Your task to perform on an android device: Add "razer blackwidow" to the cart on target.com Image 0: 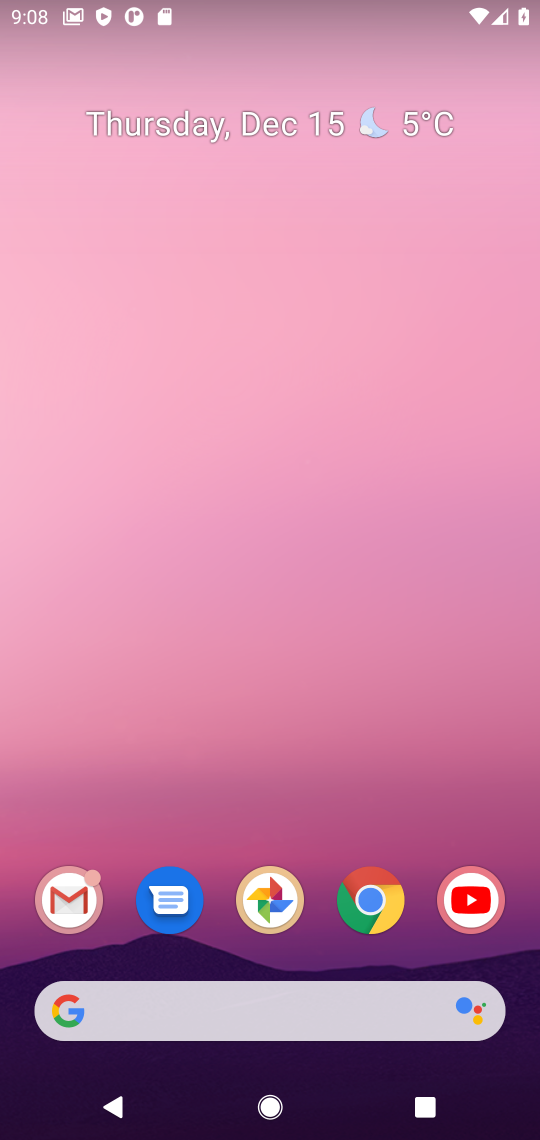
Step 0: click (386, 908)
Your task to perform on an android device: Add "razer blackwidow" to the cart on target.com Image 1: 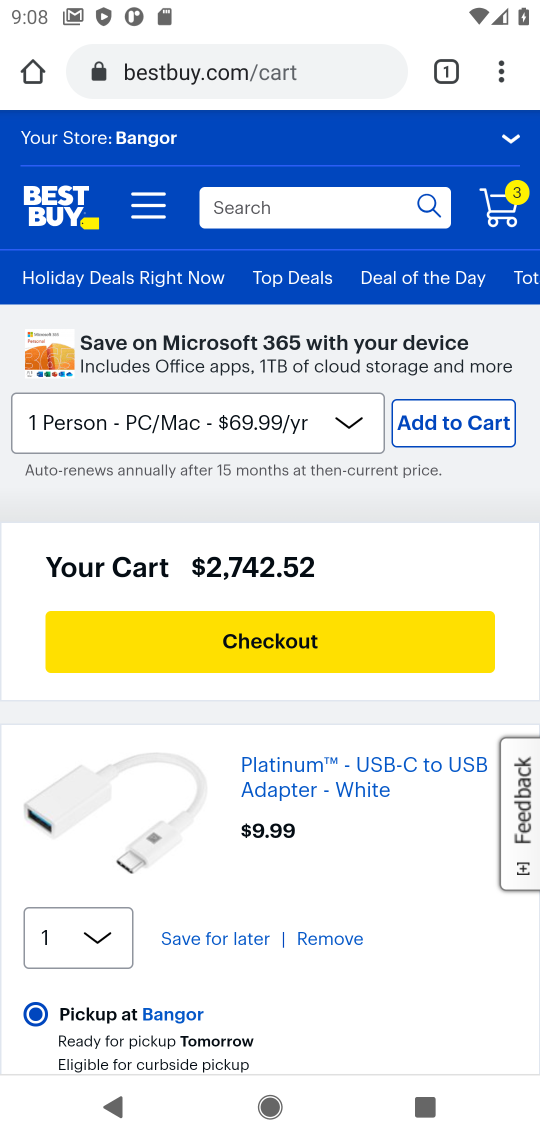
Step 1: click (230, 76)
Your task to perform on an android device: Add "razer blackwidow" to the cart on target.com Image 2: 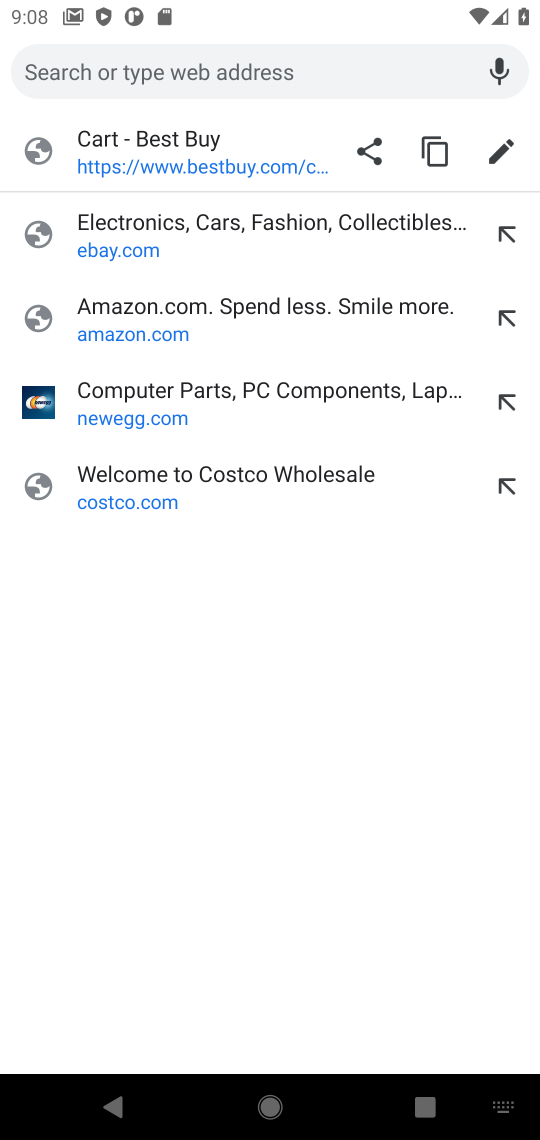
Step 2: type "target.com"
Your task to perform on an android device: Add "razer blackwidow" to the cart on target.com Image 3: 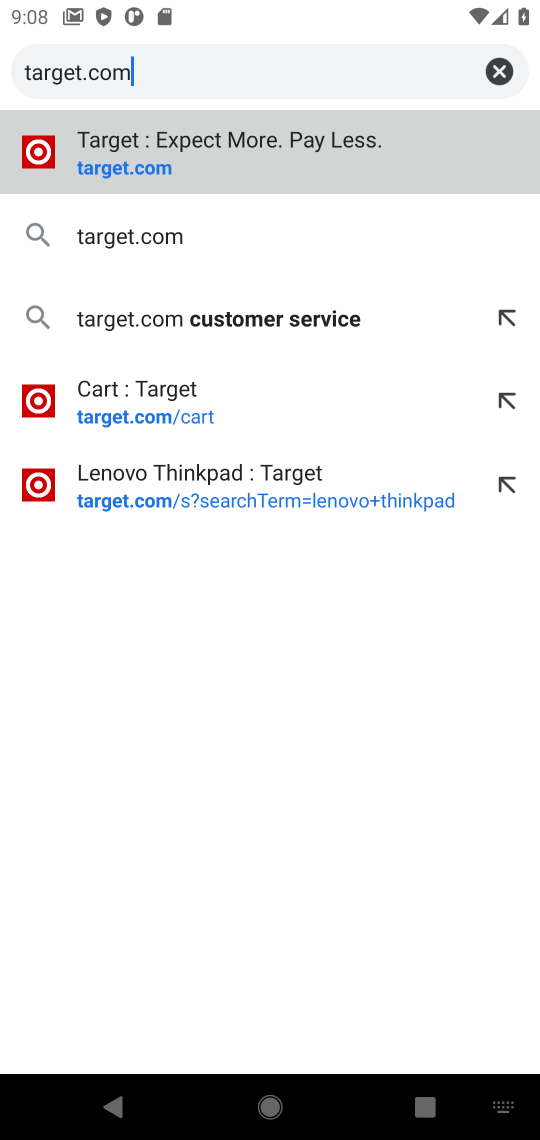
Step 3: click (277, 183)
Your task to perform on an android device: Add "razer blackwidow" to the cart on target.com Image 4: 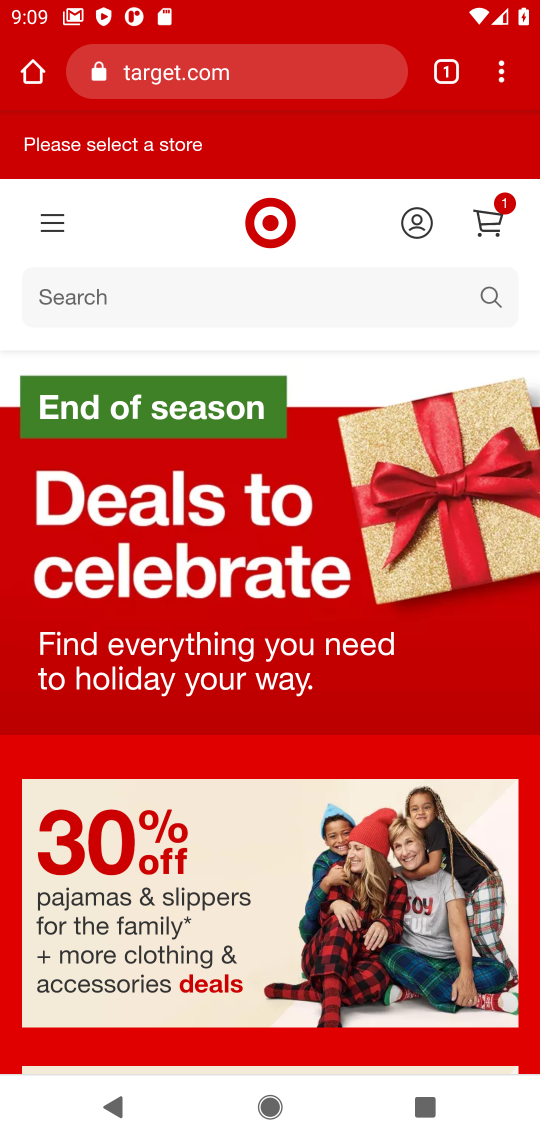
Step 4: click (97, 323)
Your task to perform on an android device: Add "razer blackwidow" to the cart on target.com Image 5: 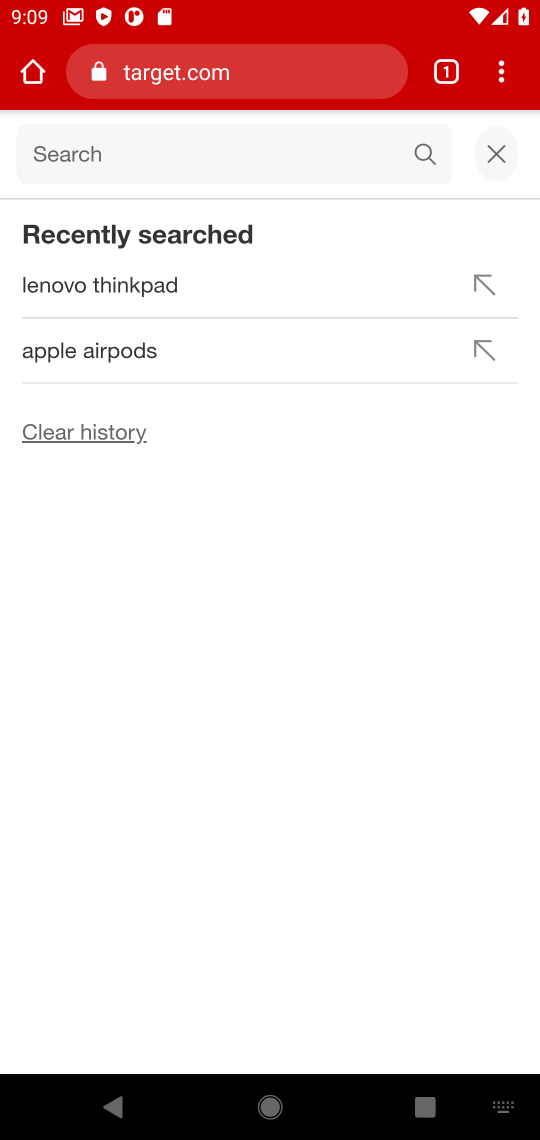
Step 5: type "razer blackwidow"
Your task to perform on an android device: Add "razer blackwidow" to the cart on target.com Image 6: 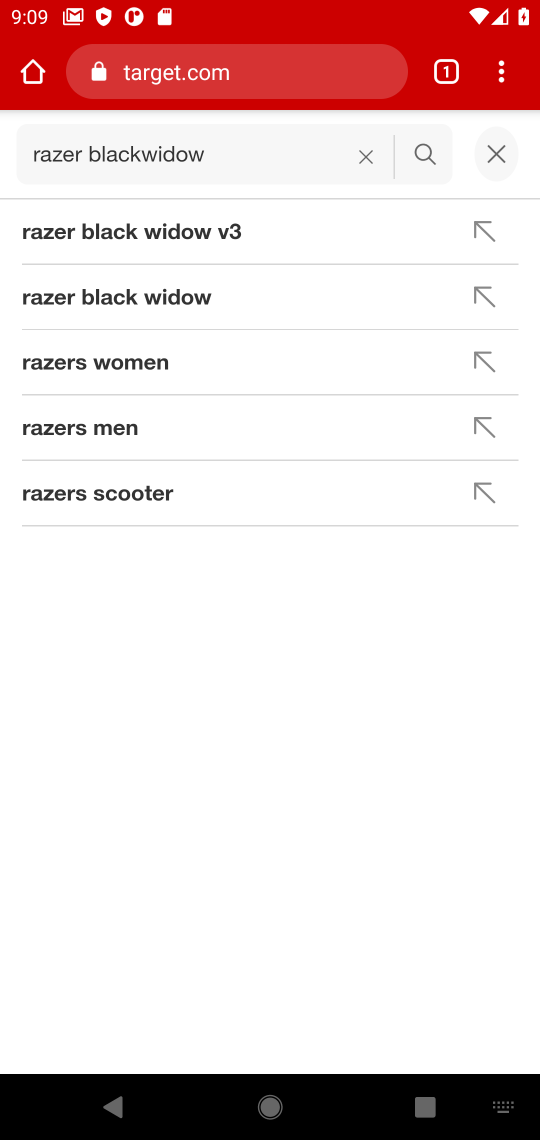
Step 6: press enter
Your task to perform on an android device: Add "razer blackwidow" to the cart on target.com Image 7: 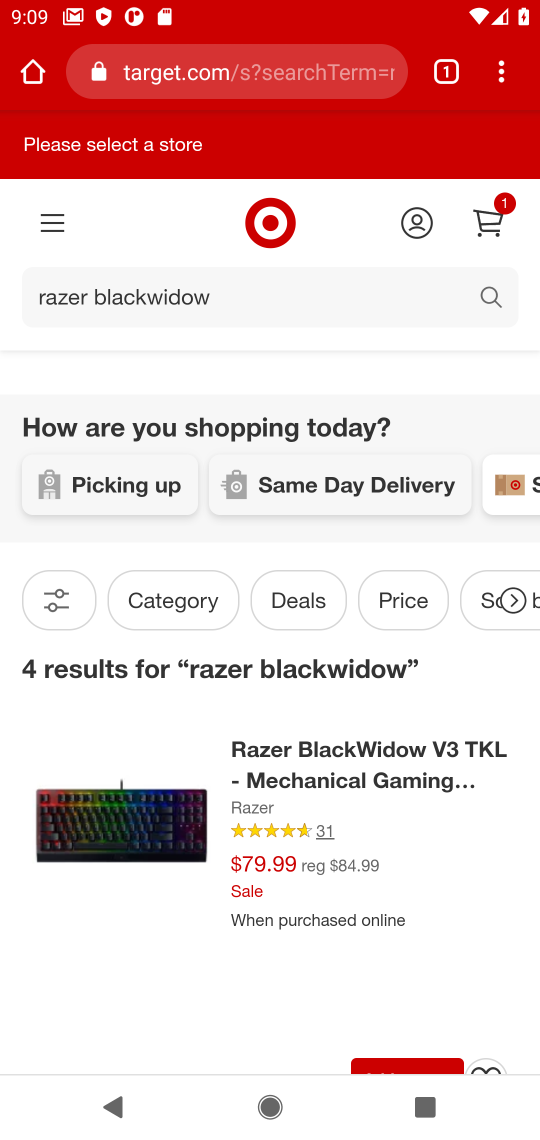
Step 7: click (363, 773)
Your task to perform on an android device: Add "razer blackwidow" to the cart on target.com Image 8: 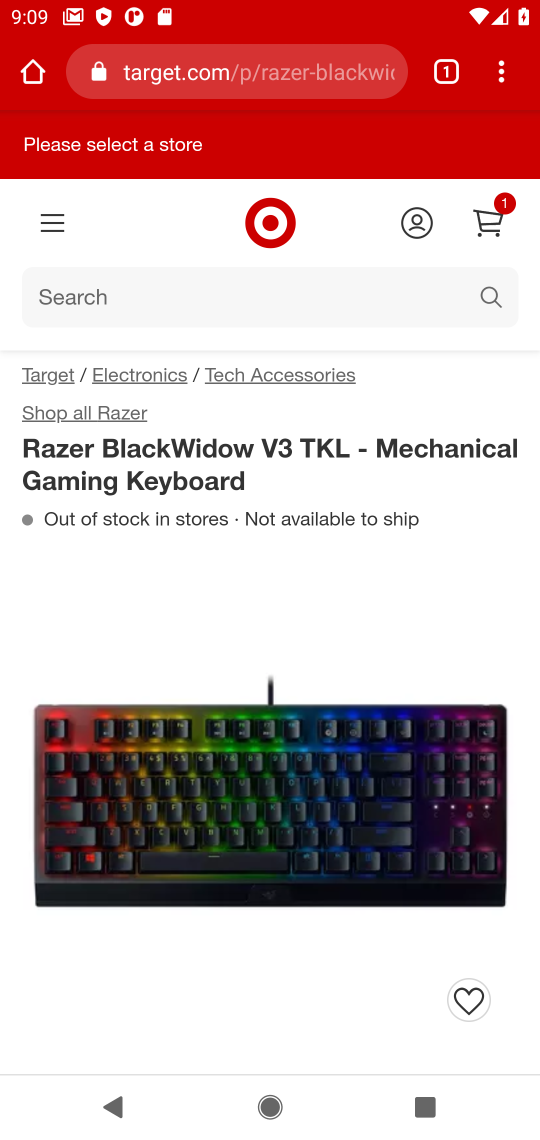
Step 8: drag from (432, 1056) to (409, 582)
Your task to perform on an android device: Add "razer blackwidow" to the cart on target.com Image 9: 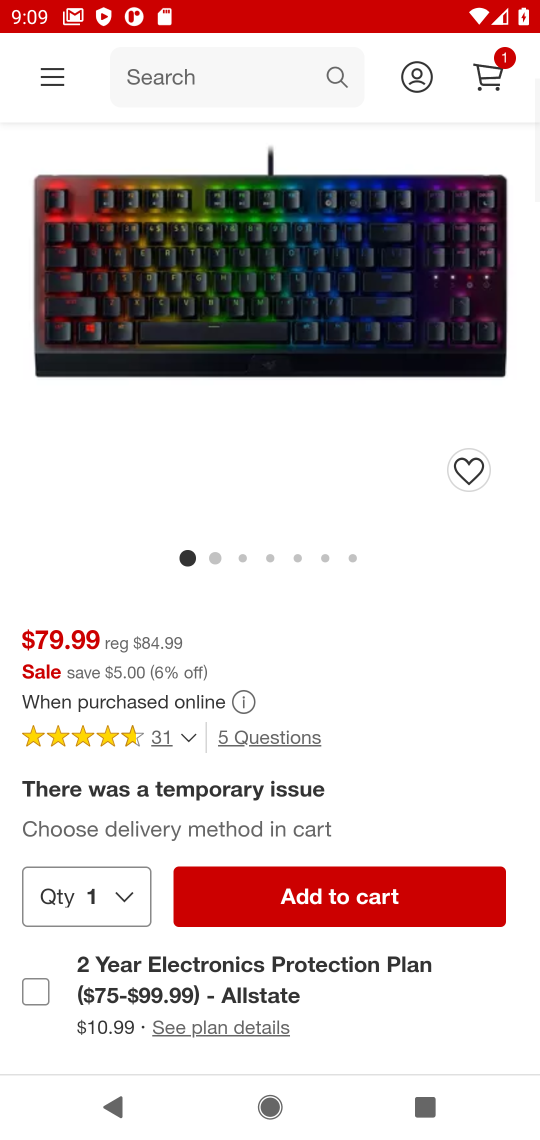
Step 9: click (289, 898)
Your task to perform on an android device: Add "razer blackwidow" to the cart on target.com Image 10: 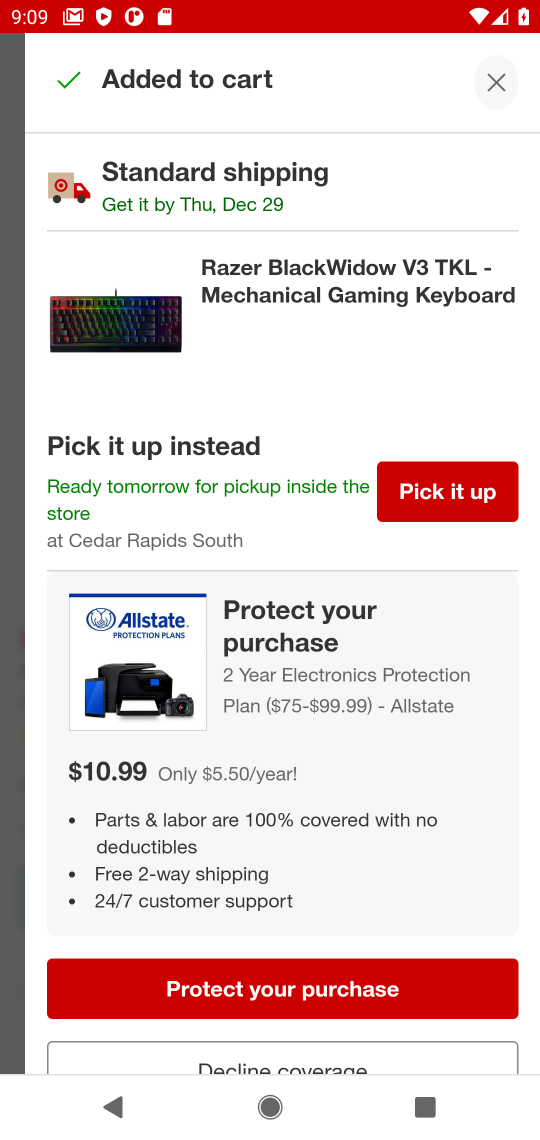
Step 10: click (226, 994)
Your task to perform on an android device: Add "razer blackwidow" to the cart on target.com Image 11: 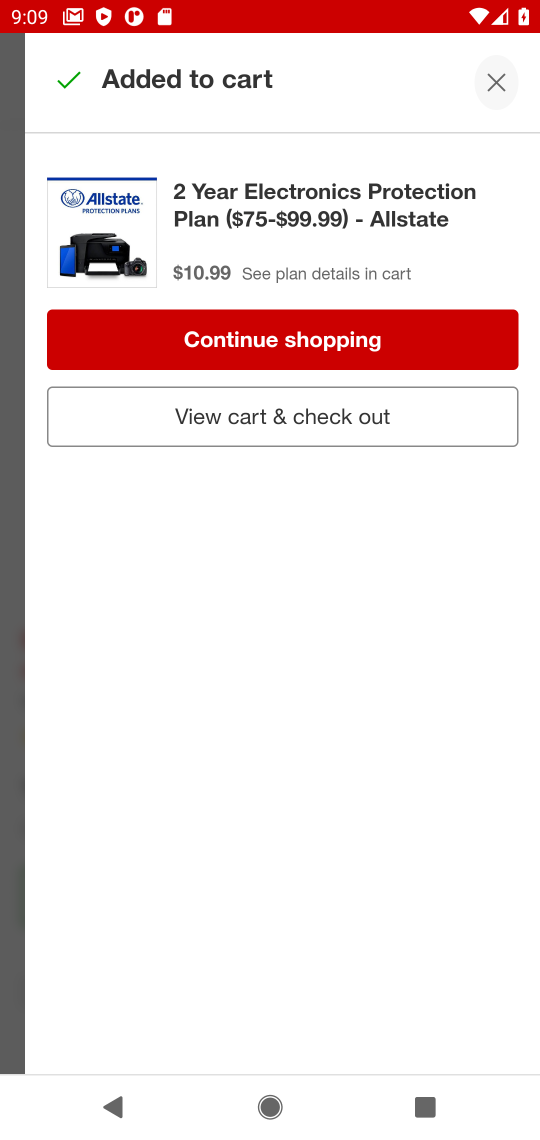
Step 11: click (286, 422)
Your task to perform on an android device: Add "razer blackwidow" to the cart on target.com Image 12: 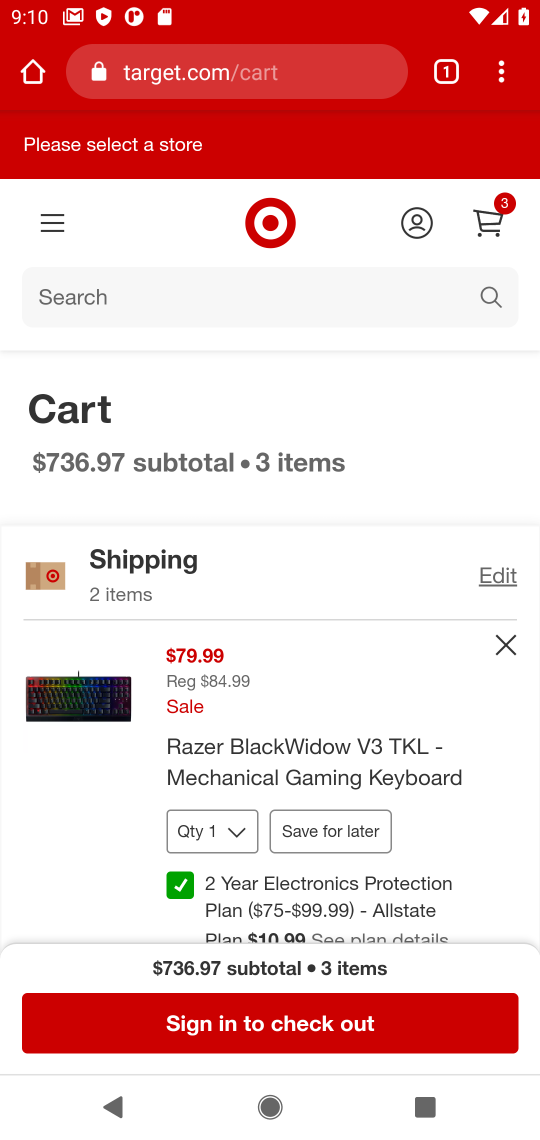
Step 12: click (311, 1035)
Your task to perform on an android device: Add "razer blackwidow" to the cart on target.com Image 13: 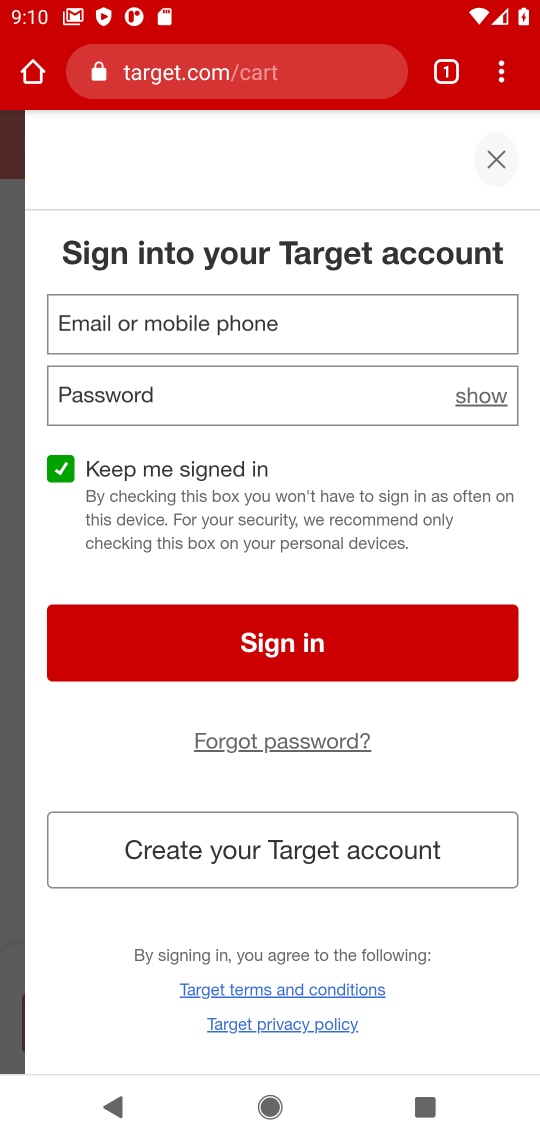
Step 13: task complete